Your task to perform on an android device: Search for pizza restaurants on Maps Image 0: 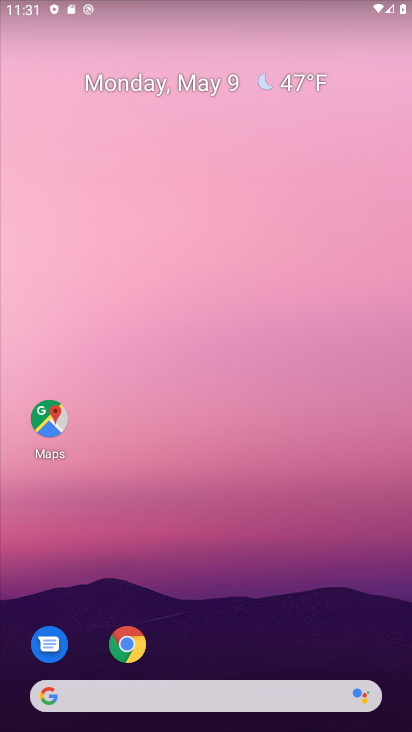
Step 0: click (258, 140)
Your task to perform on an android device: Search for pizza restaurants on Maps Image 1: 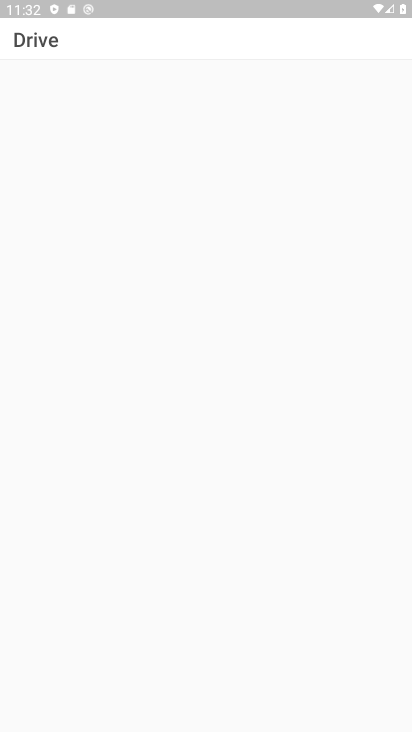
Step 1: press home button
Your task to perform on an android device: Search for pizza restaurants on Maps Image 2: 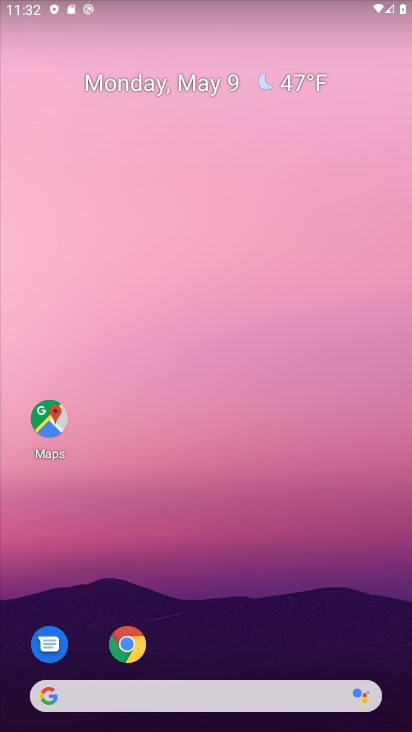
Step 2: drag from (27, 560) to (171, 227)
Your task to perform on an android device: Search for pizza restaurants on Maps Image 3: 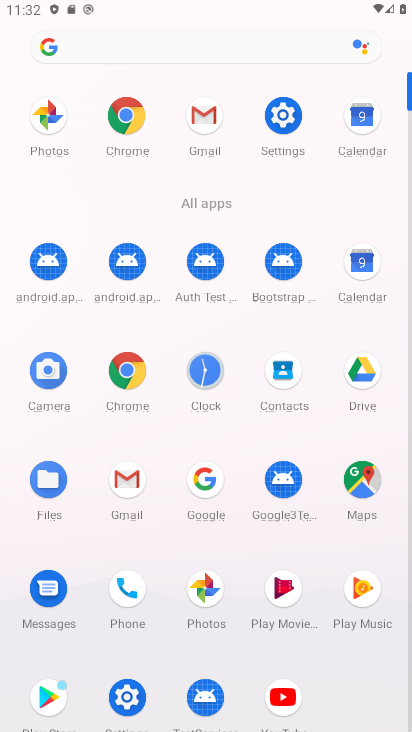
Step 3: click (369, 466)
Your task to perform on an android device: Search for pizza restaurants on Maps Image 4: 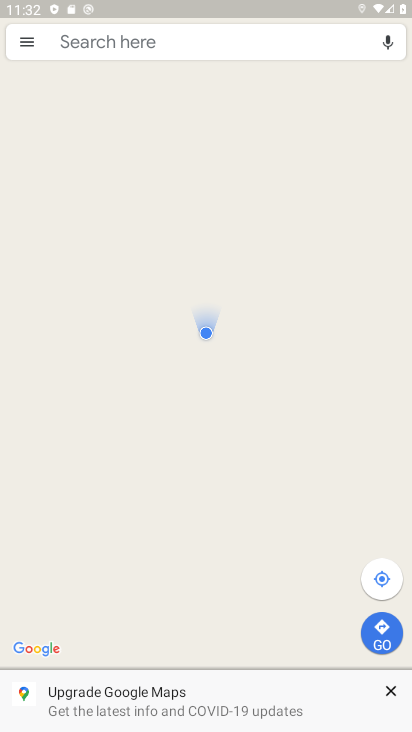
Step 4: click (210, 44)
Your task to perform on an android device: Search for pizza restaurants on Maps Image 5: 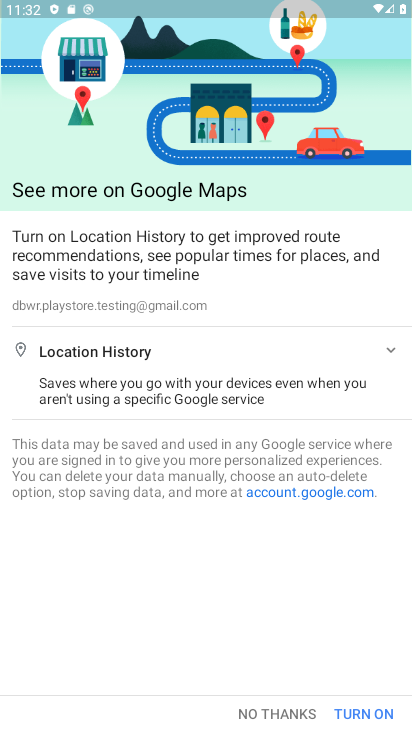
Step 5: click (298, 721)
Your task to perform on an android device: Search for pizza restaurants on Maps Image 6: 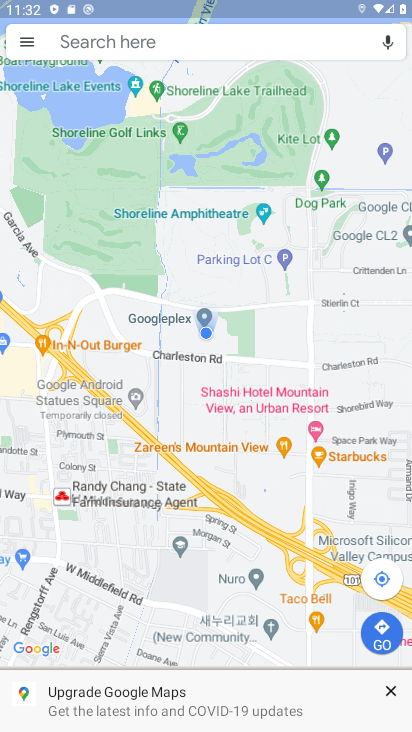
Step 6: click (186, 41)
Your task to perform on an android device: Search for pizza restaurants on Maps Image 7: 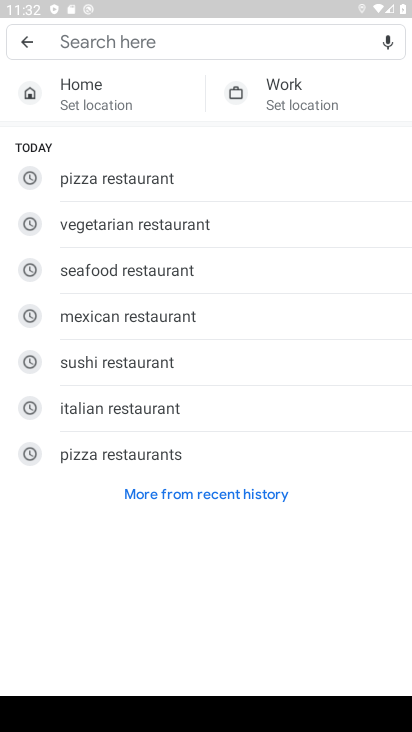
Step 7: click (145, 180)
Your task to perform on an android device: Search for pizza restaurants on Maps Image 8: 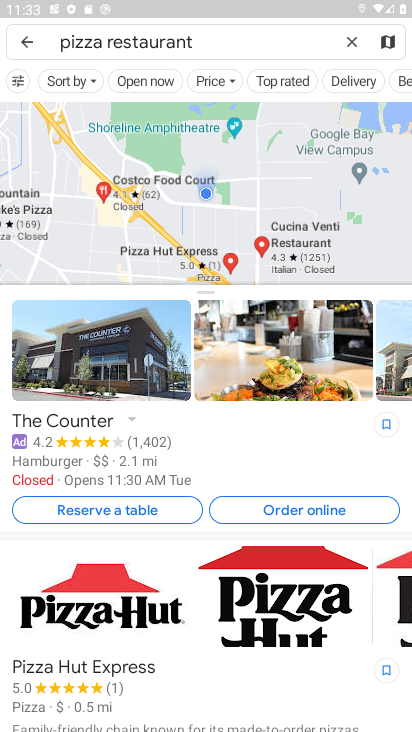
Step 8: task complete